Your task to perform on an android device: turn on airplane mode Image 0: 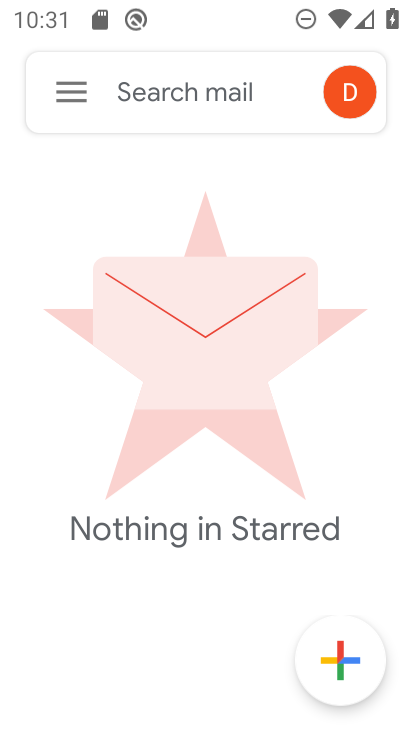
Step 0: press home button
Your task to perform on an android device: turn on airplane mode Image 1: 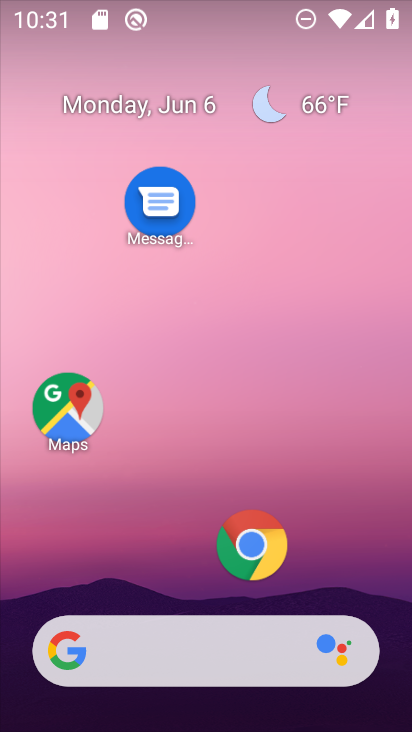
Step 1: drag from (188, 545) to (141, 15)
Your task to perform on an android device: turn on airplane mode Image 2: 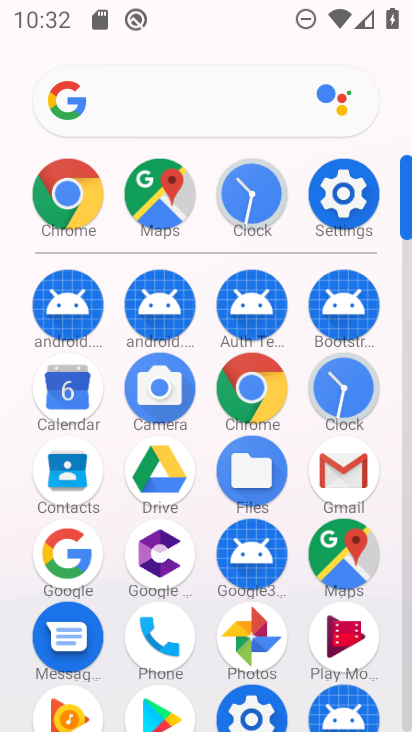
Step 2: click (344, 199)
Your task to perform on an android device: turn on airplane mode Image 3: 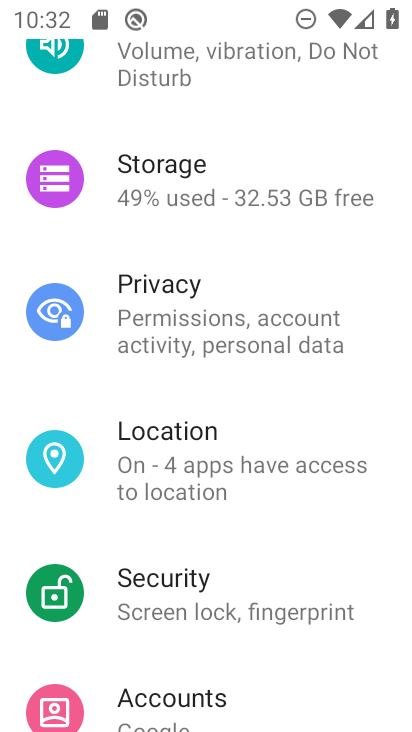
Step 3: drag from (229, 145) to (229, 575)
Your task to perform on an android device: turn on airplane mode Image 4: 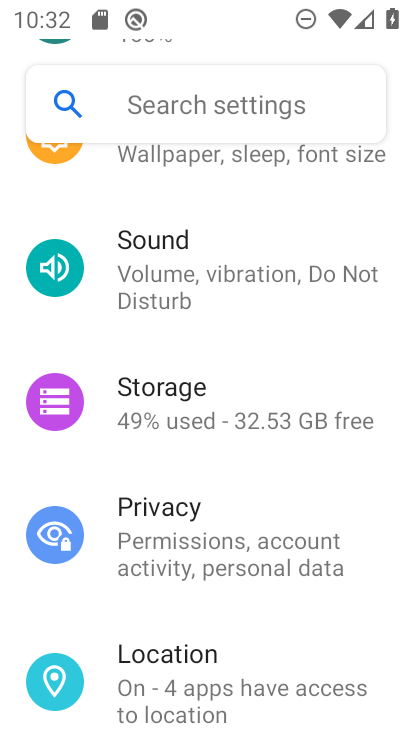
Step 4: drag from (179, 225) to (295, 594)
Your task to perform on an android device: turn on airplane mode Image 5: 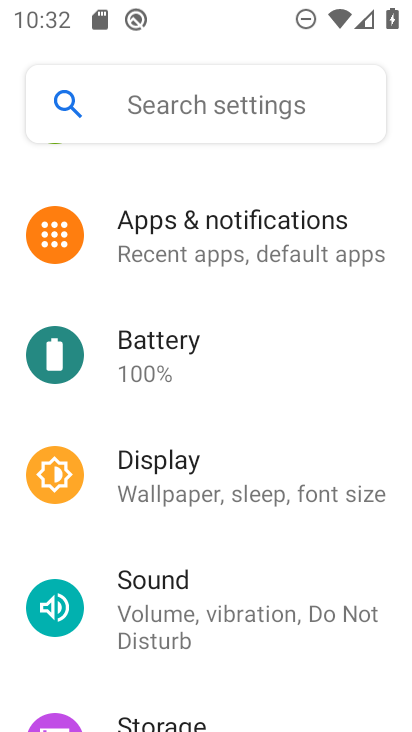
Step 5: drag from (174, 177) to (266, 598)
Your task to perform on an android device: turn on airplane mode Image 6: 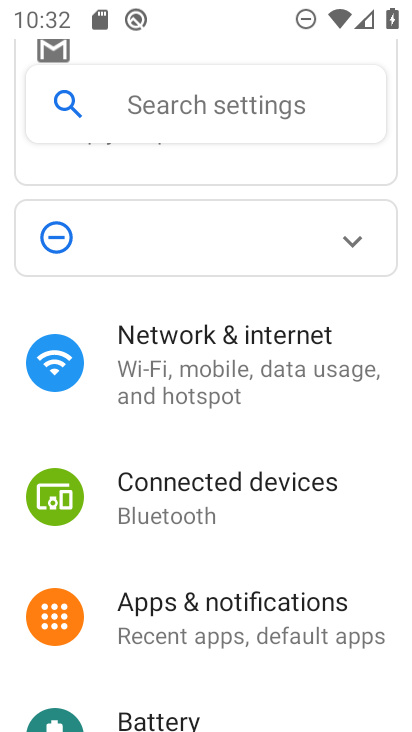
Step 6: click (201, 392)
Your task to perform on an android device: turn on airplane mode Image 7: 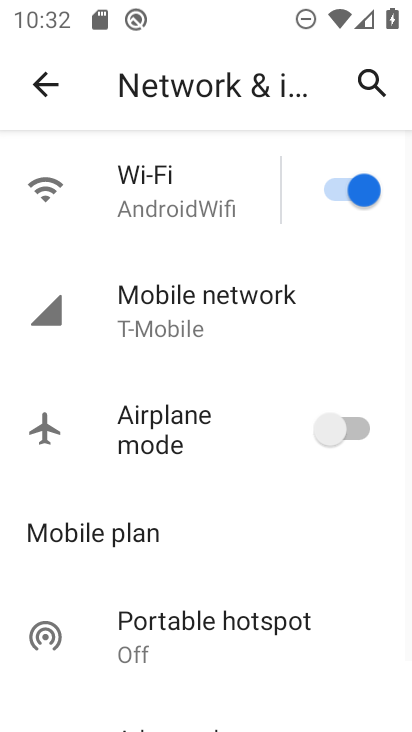
Step 7: click (321, 429)
Your task to perform on an android device: turn on airplane mode Image 8: 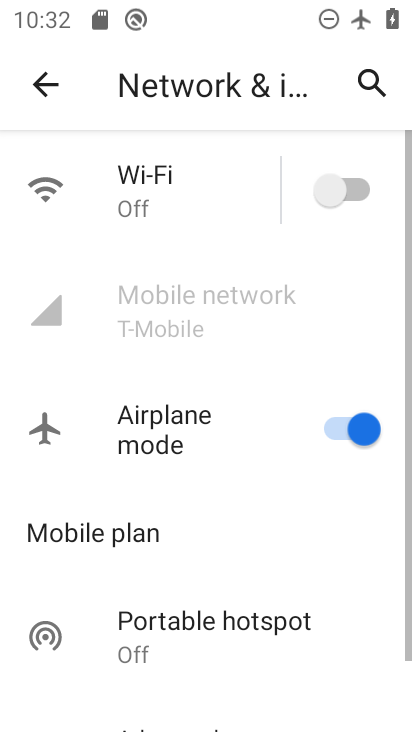
Step 8: task complete